Your task to perform on an android device: Open ESPN.com Image 0: 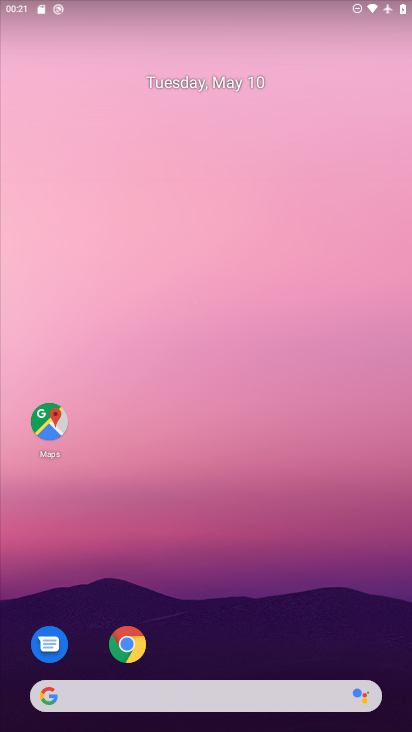
Step 0: click (134, 626)
Your task to perform on an android device: Open ESPN.com Image 1: 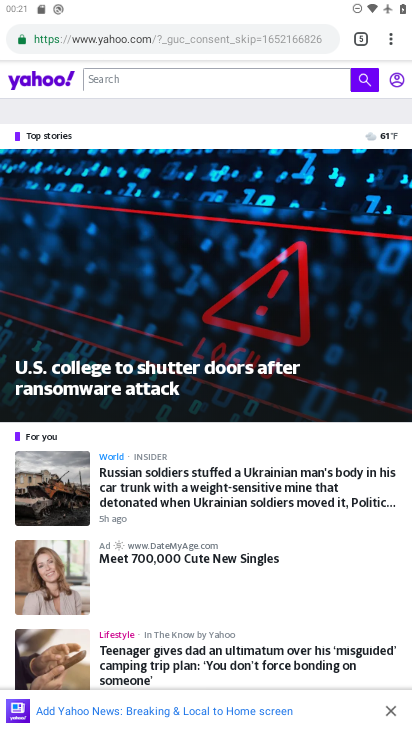
Step 1: click (355, 34)
Your task to perform on an android device: Open ESPN.com Image 2: 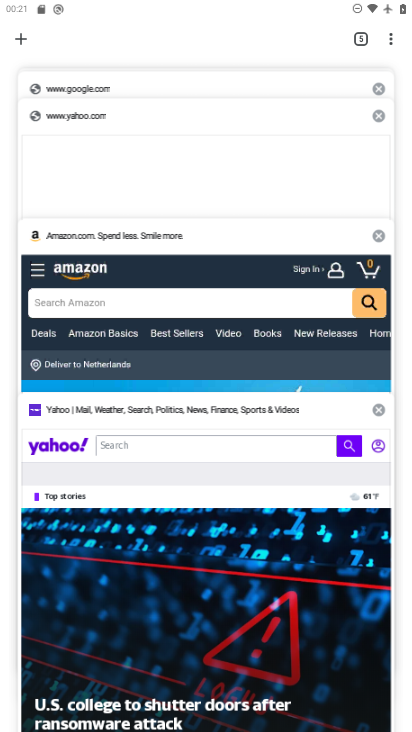
Step 2: click (20, 34)
Your task to perform on an android device: Open ESPN.com Image 3: 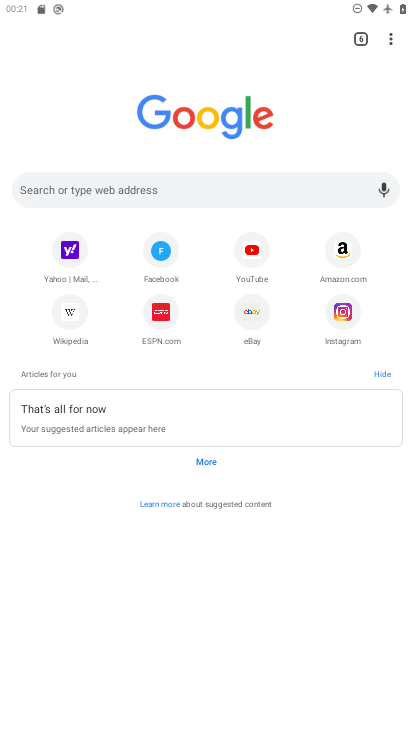
Step 3: click (169, 318)
Your task to perform on an android device: Open ESPN.com Image 4: 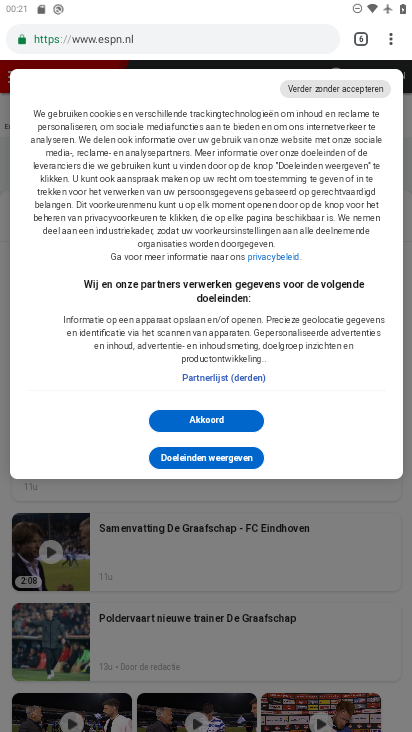
Step 4: click (182, 423)
Your task to perform on an android device: Open ESPN.com Image 5: 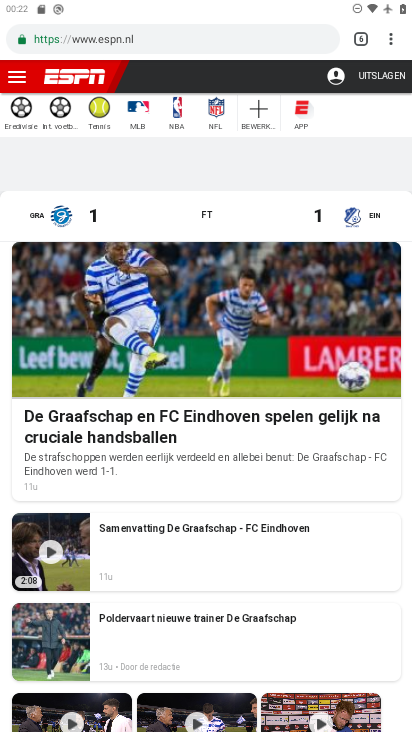
Step 5: task complete